Your task to perform on an android device: Search for Italian restaurants on Maps Image 0: 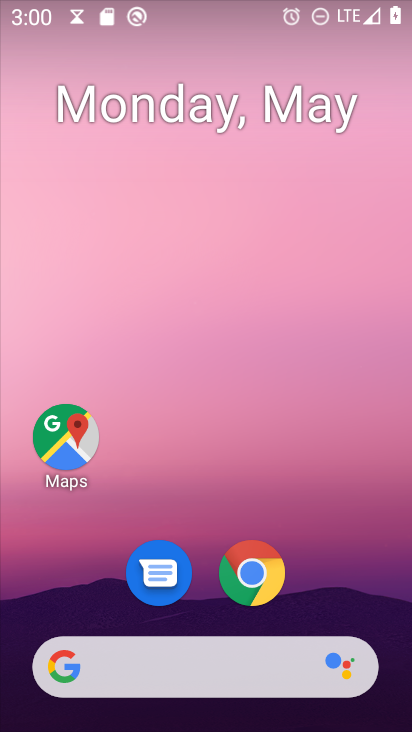
Step 0: drag from (325, 649) to (348, 33)
Your task to perform on an android device: Search for Italian restaurants on Maps Image 1: 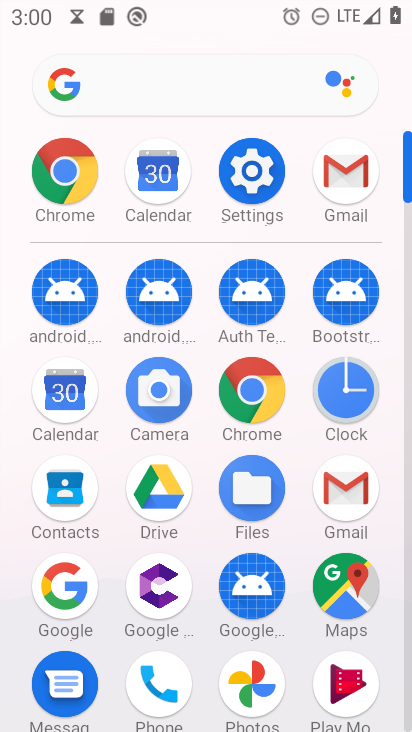
Step 1: click (357, 594)
Your task to perform on an android device: Search for Italian restaurants on Maps Image 2: 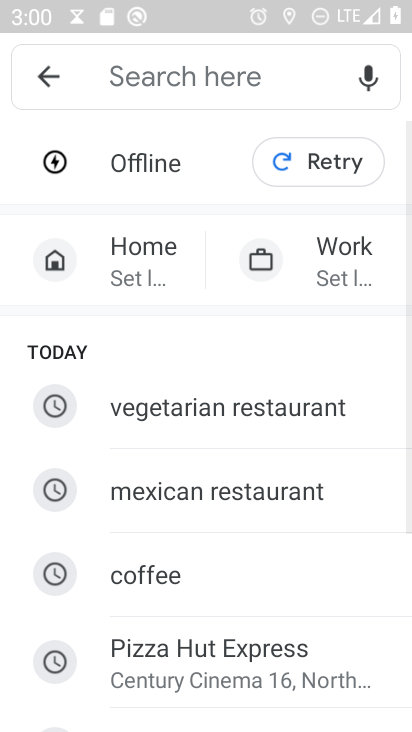
Step 2: click (269, 86)
Your task to perform on an android device: Search for Italian restaurants on Maps Image 3: 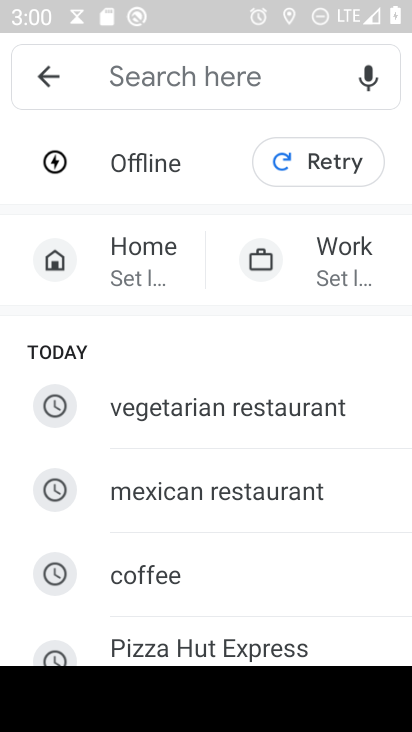
Step 3: drag from (280, 599) to (307, 227)
Your task to perform on an android device: Search for Italian restaurants on Maps Image 4: 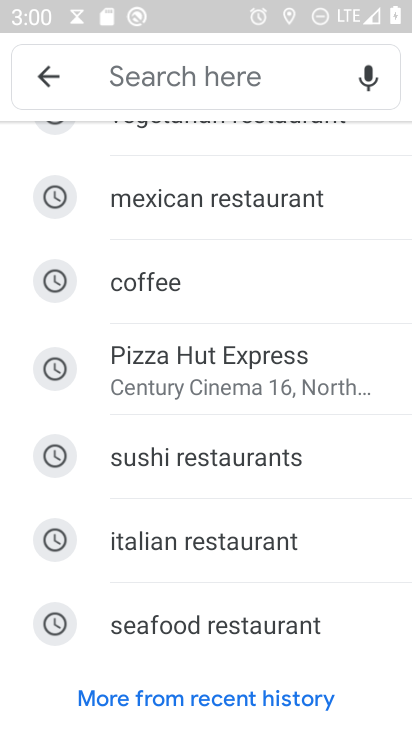
Step 4: click (323, 555)
Your task to perform on an android device: Search for Italian restaurants on Maps Image 5: 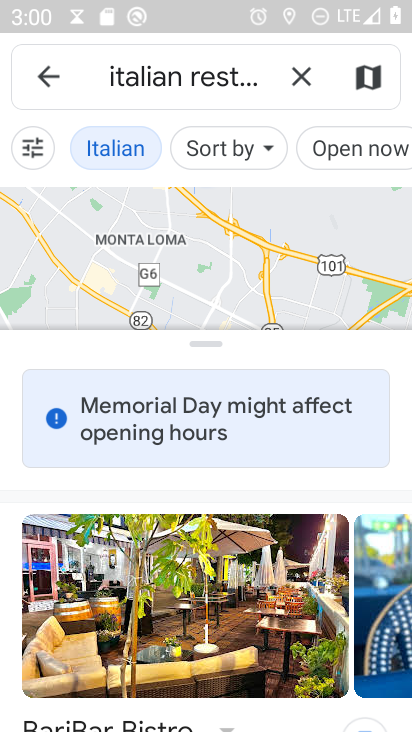
Step 5: task complete